Your task to perform on an android device: Show me popular games on the Play Store Image 0: 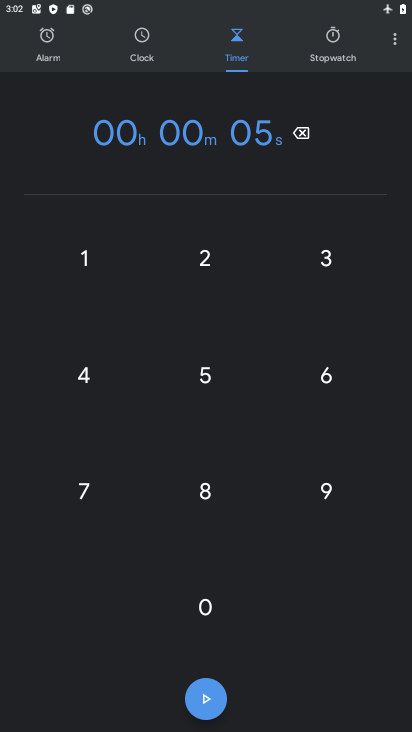
Step 0: press home button
Your task to perform on an android device: Show me popular games on the Play Store Image 1: 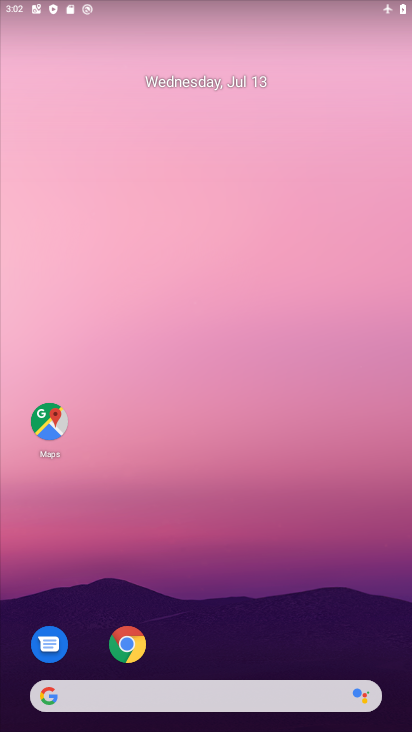
Step 1: drag from (315, 487) to (341, 52)
Your task to perform on an android device: Show me popular games on the Play Store Image 2: 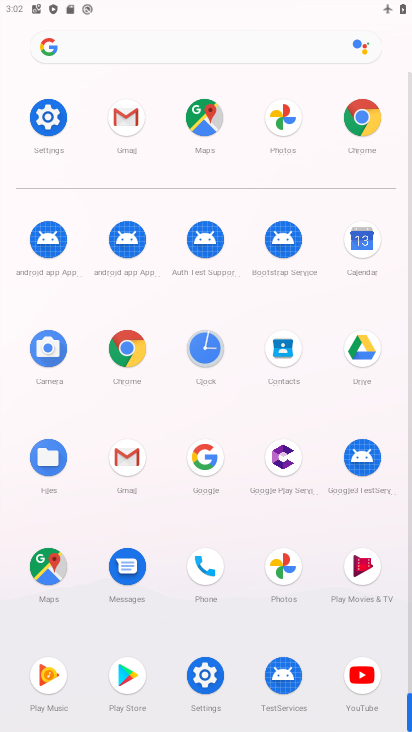
Step 2: click (123, 673)
Your task to perform on an android device: Show me popular games on the Play Store Image 3: 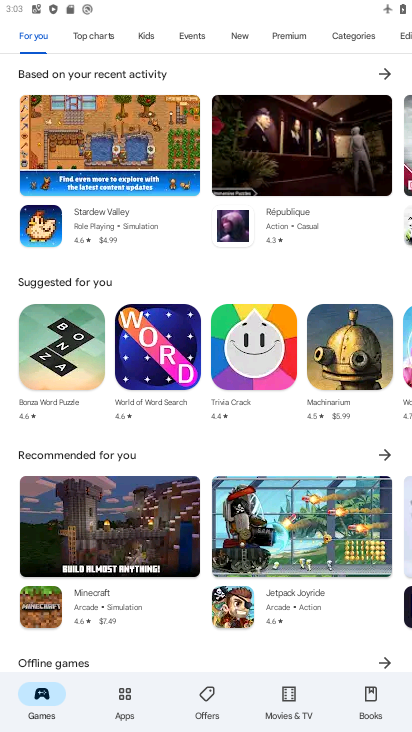
Step 3: task complete